Your task to perform on an android device: change the clock style Image 0: 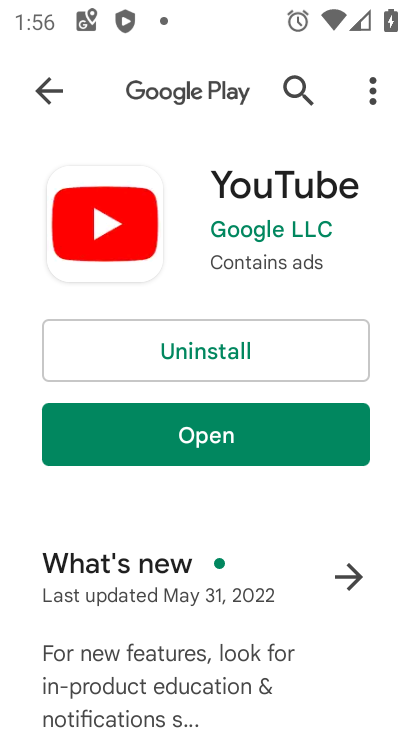
Step 0: press home button
Your task to perform on an android device: change the clock style Image 1: 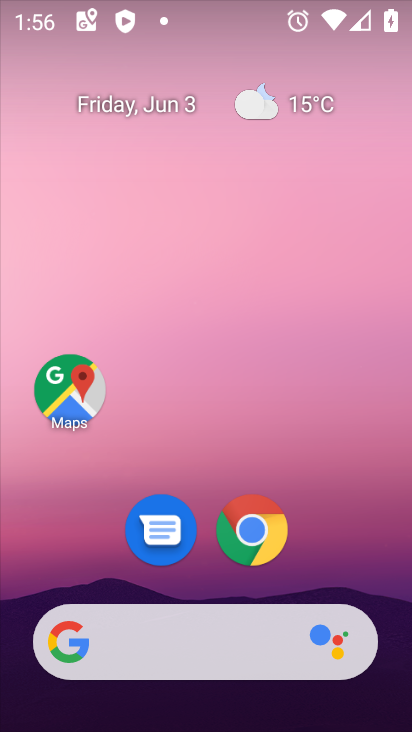
Step 1: drag from (349, 554) to (335, 56)
Your task to perform on an android device: change the clock style Image 2: 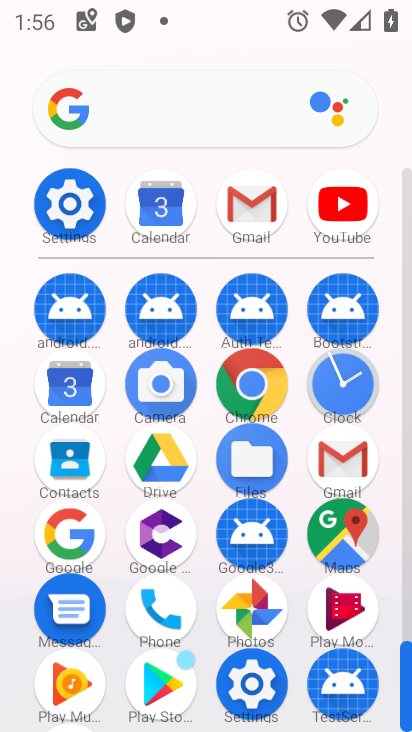
Step 2: click (328, 382)
Your task to perform on an android device: change the clock style Image 3: 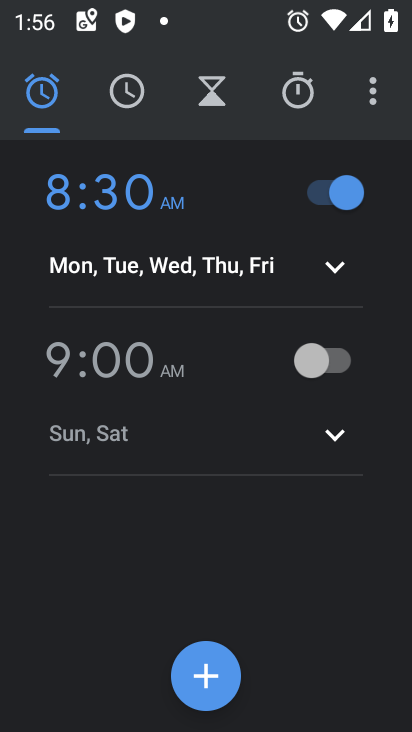
Step 3: click (385, 95)
Your task to perform on an android device: change the clock style Image 4: 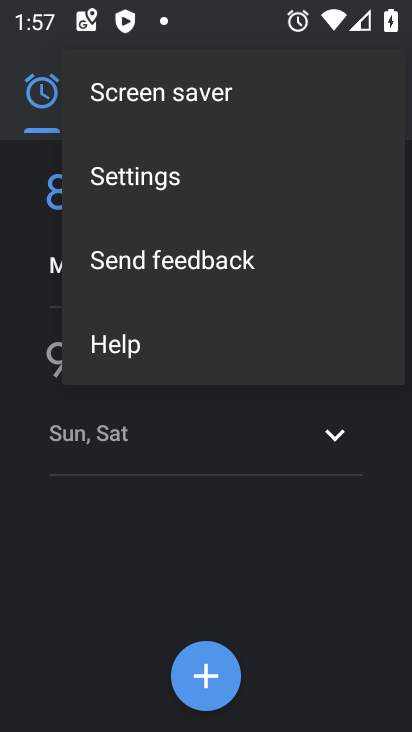
Step 4: click (153, 191)
Your task to perform on an android device: change the clock style Image 5: 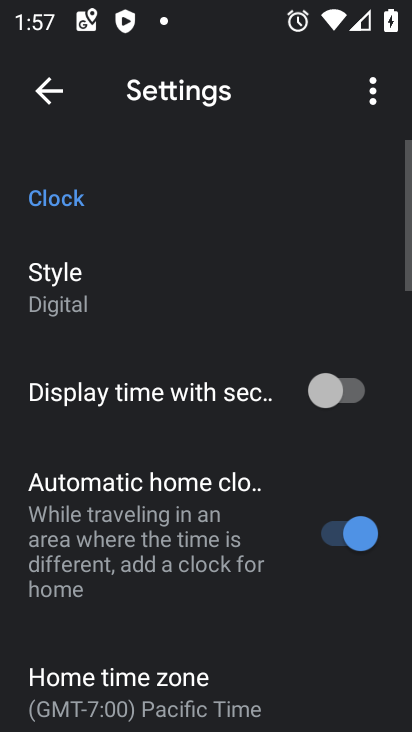
Step 5: click (111, 295)
Your task to perform on an android device: change the clock style Image 6: 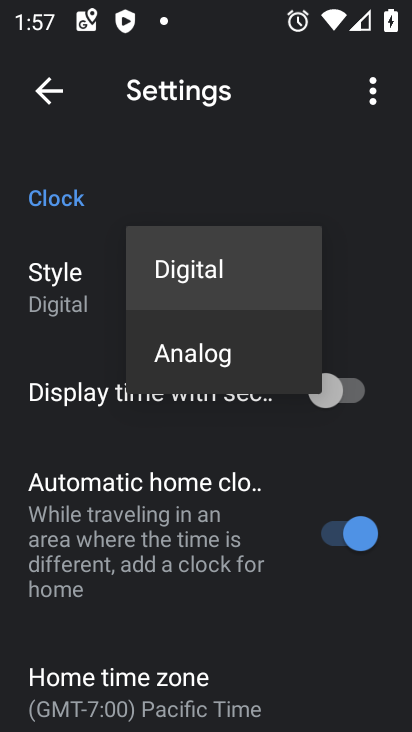
Step 6: click (215, 344)
Your task to perform on an android device: change the clock style Image 7: 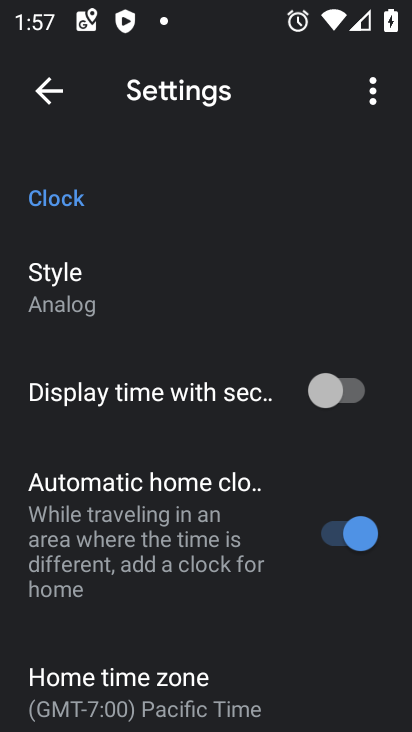
Step 7: task complete